Your task to perform on an android device: Open Amazon Image 0: 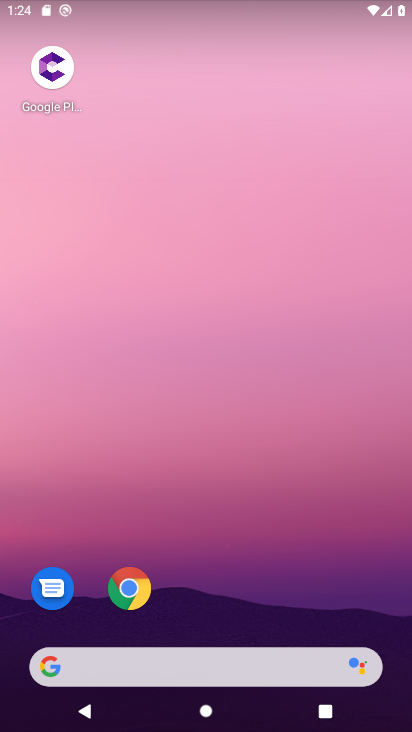
Step 0: drag from (242, 580) to (259, 160)
Your task to perform on an android device: Open Amazon Image 1: 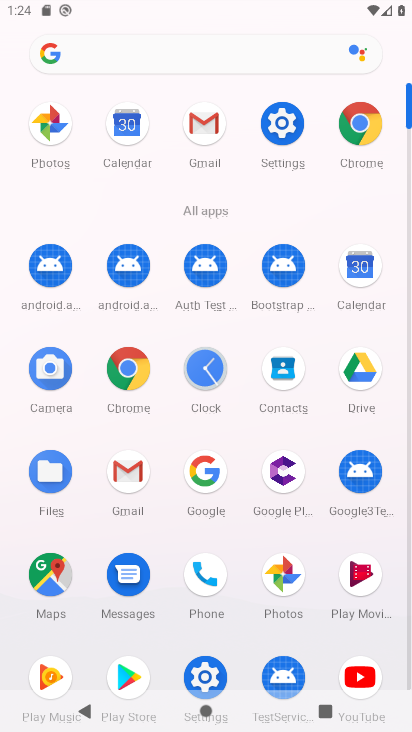
Step 1: click (138, 372)
Your task to perform on an android device: Open Amazon Image 2: 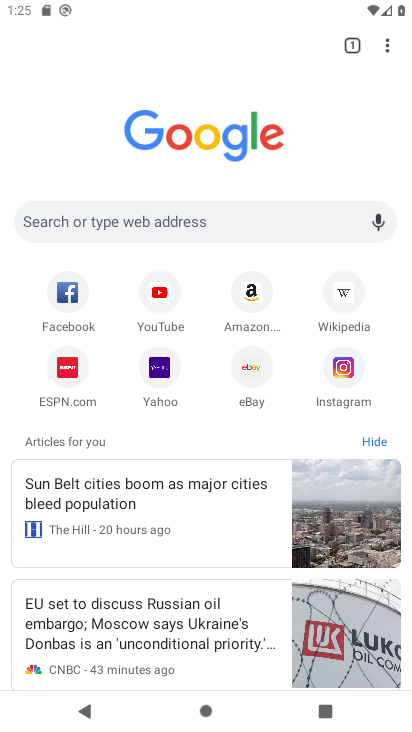
Step 2: click (259, 299)
Your task to perform on an android device: Open Amazon Image 3: 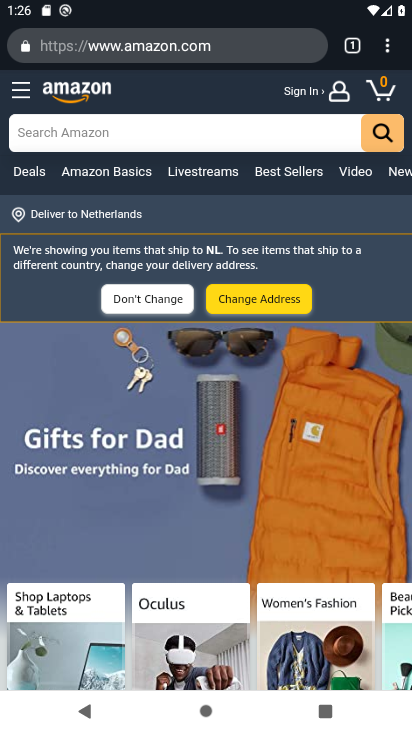
Step 3: task complete